Your task to perform on an android device: Go to network settings Image 0: 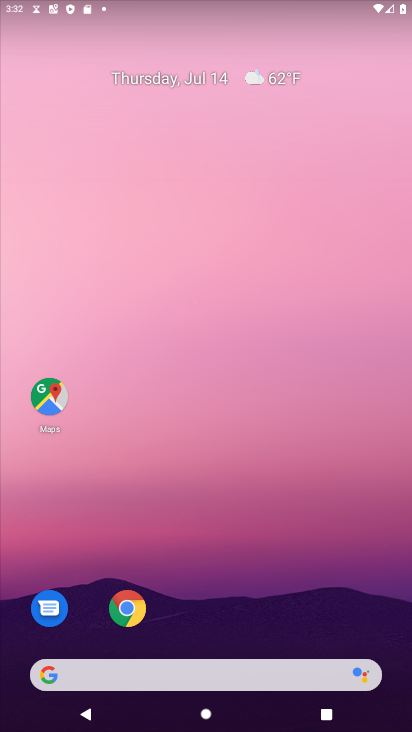
Step 0: drag from (212, 667) to (169, 120)
Your task to perform on an android device: Go to network settings Image 1: 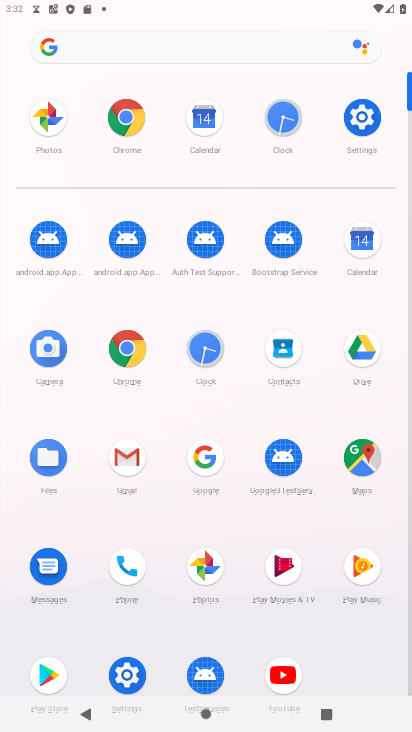
Step 1: click (357, 123)
Your task to perform on an android device: Go to network settings Image 2: 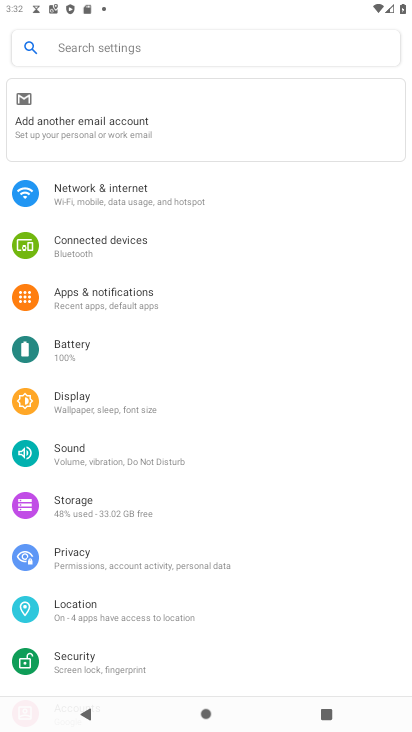
Step 2: click (160, 192)
Your task to perform on an android device: Go to network settings Image 3: 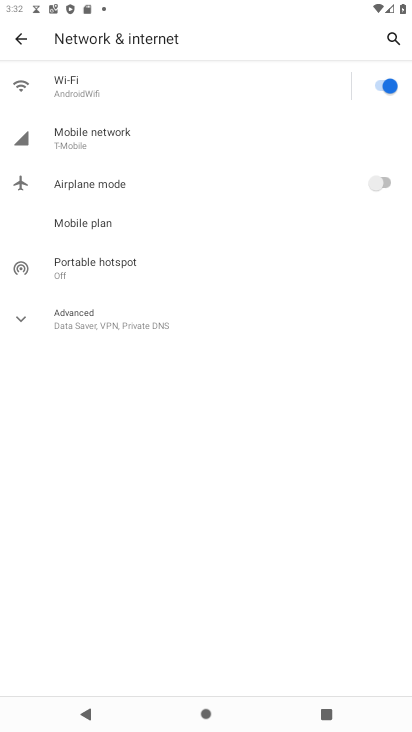
Step 3: task complete